Your task to perform on an android device: see creations saved in the google photos Image 0: 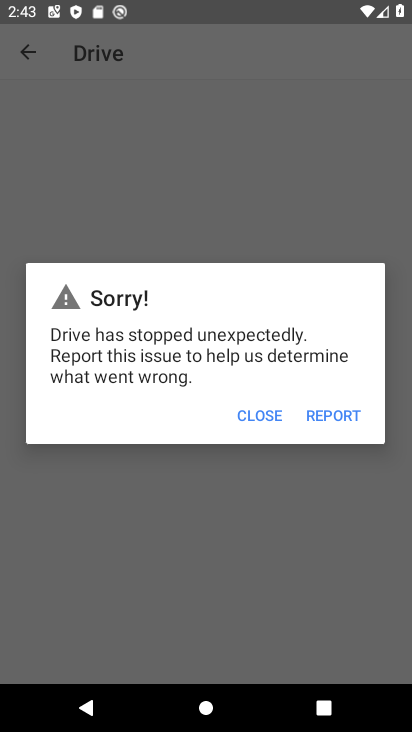
Step 0: press home button
Your task to perform on an android device: see creations saved in the google photos Image 1: 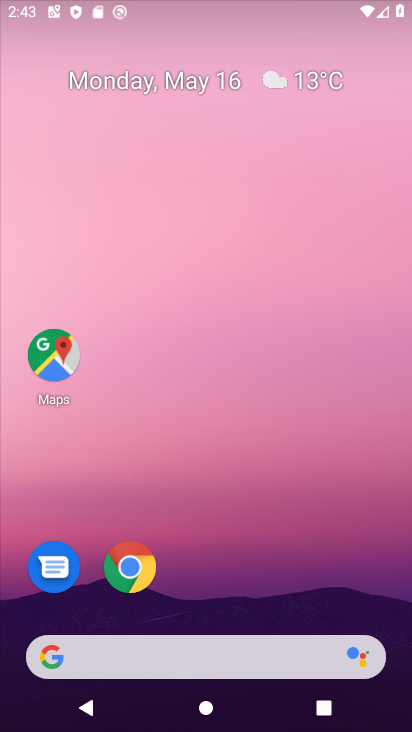
Step 1: drag from (309, 606) to (324, 153)
Your task to perform on an android device: see creations saved in the google photos Image 2: 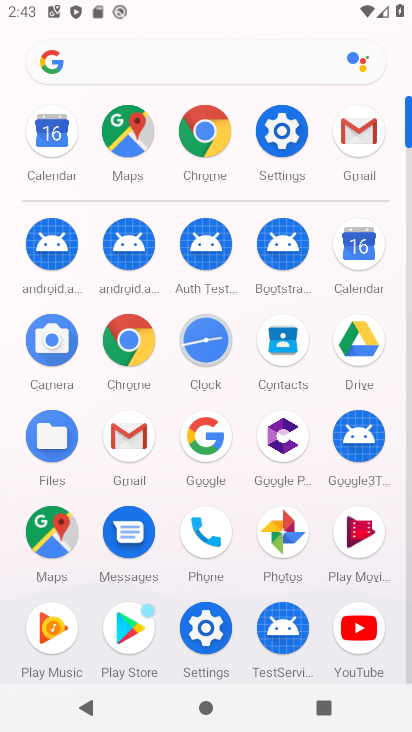
Step 2: click (289, 527)
Your task to perform on an android device: see creations saved in the google photos Image 3: 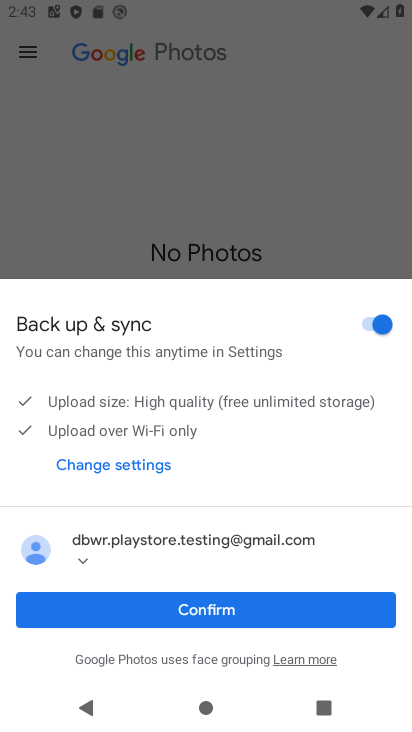
Step 3: click (249, 607)
Your task to perform on an android device: see creations saved in the google photos Image 4: 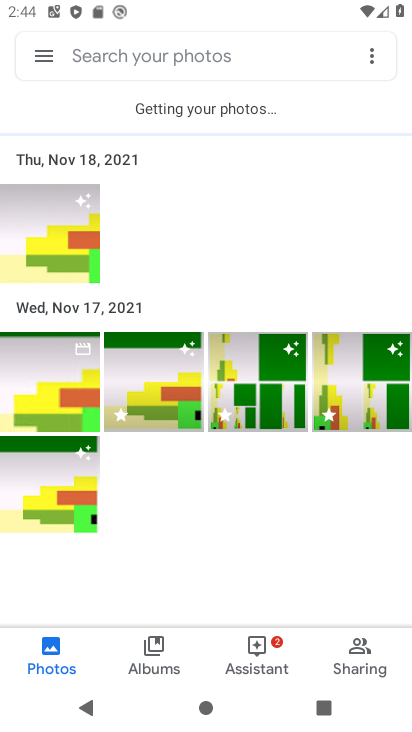
Step 4: click (245, 653)
Your task to perform on an android device: see creations saved in the google photos Image 5: 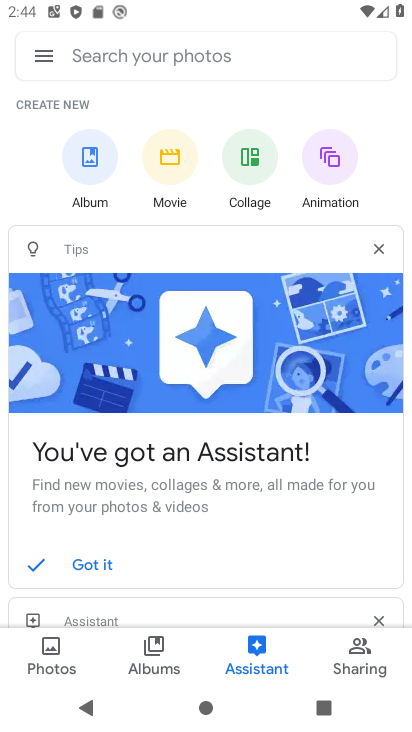
Step 5: click (356, 663)
Your task to perform on an android device: see creations saved in the google photos Image 6: 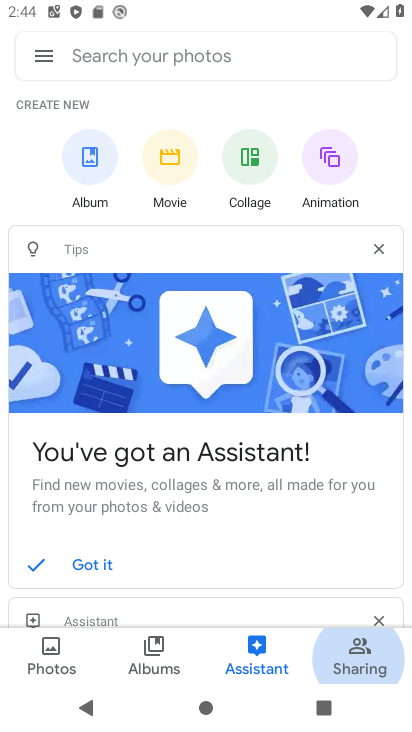
Step 6: click (356, 663)
Your task to perform on an android device: see creations saved in the google photos Image 7: 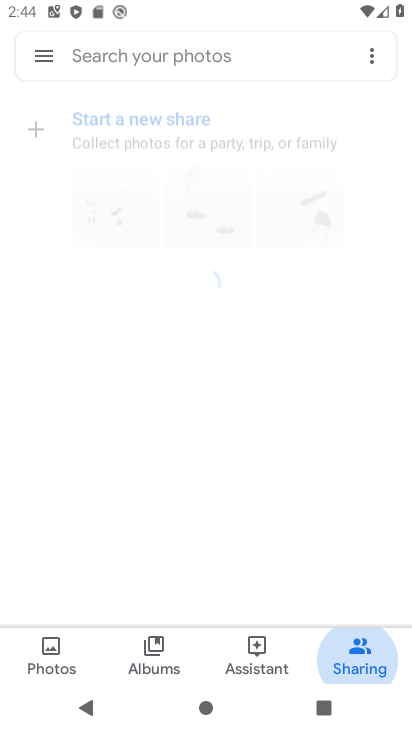
Step 7: click (356, 663)
Your task to perform on an android device: see creations saved in the google photos Image 8: 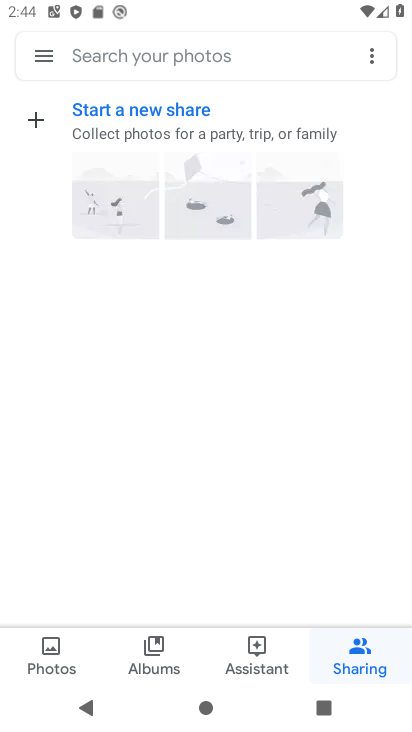
Step 8: click (356, 663)
Your task to perform on an android device: see creations saved in the google photos Image 9: 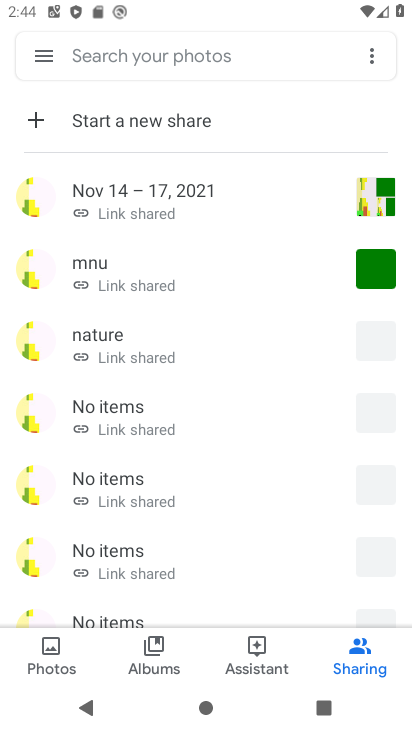
Step 9: click (268, 644)
Your task to perform on an android device: see creations saved in the google photos Image 10: 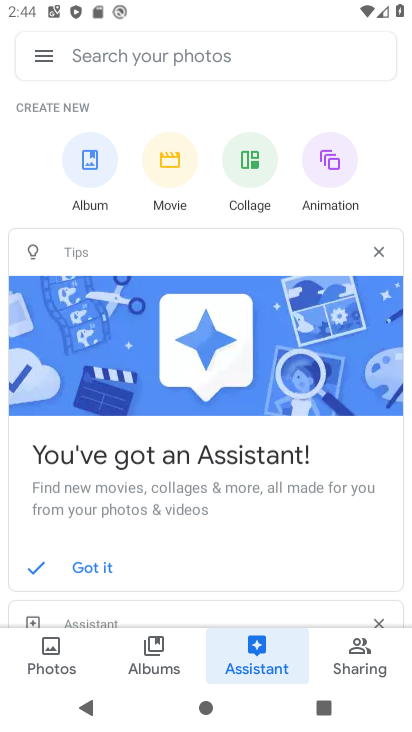
Step 10: click (161, 651)
Your task to perform on an android device: see creations saved in the google photos Image 11: 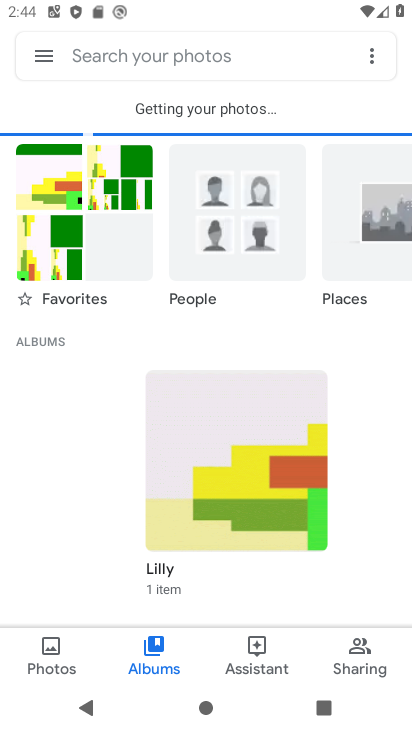
Step 11: click (237, 652)
Your task to perform on an android device: see creations saved in the google photos Image 12: 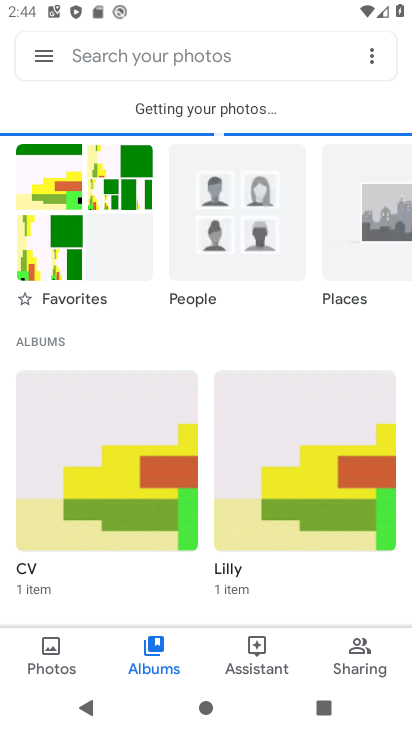
Step 12: click (237, 652)
Your task to perform on an android device: see creations saved in the google photos Image 13: 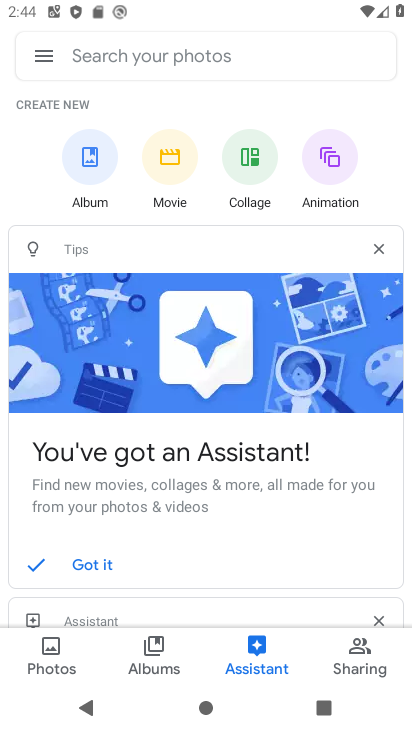
Step 13: task complete